Your task to perform on an android device: Open Wikipedia Image 0: 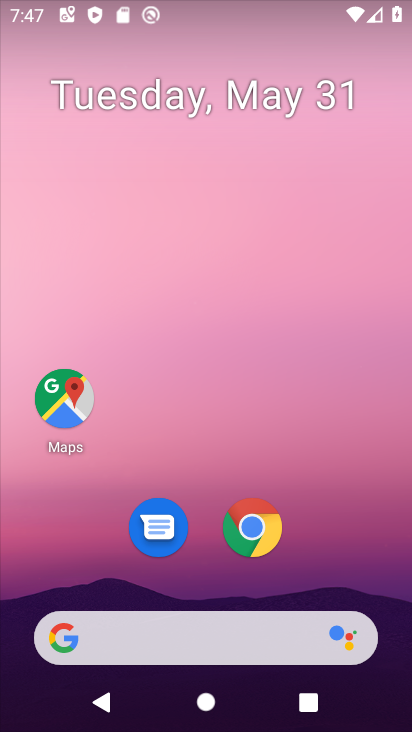
Step 0: click (249, 526)
Your task to perform on an android device: Open Wikipedia Image 1: 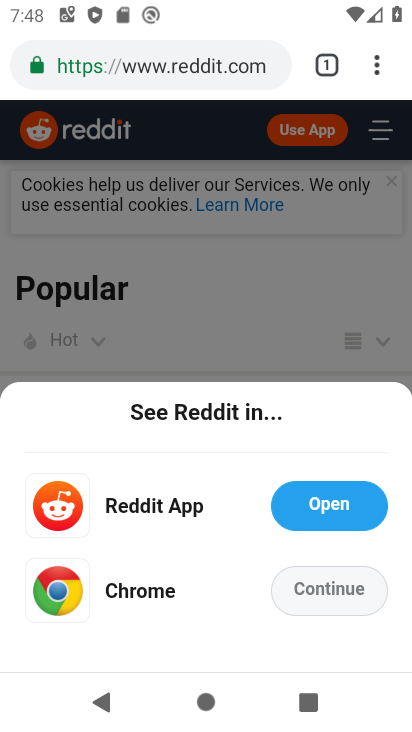
Step 1: click (315, 583)
Your task to perform on an android device: Open Wikipedia Image 2: 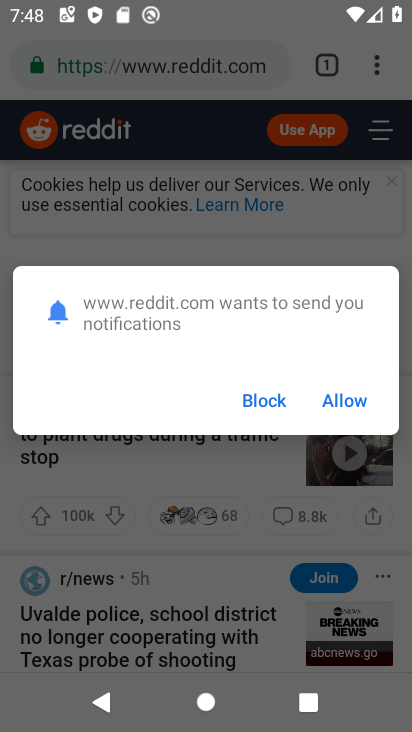
Step 2: click (328, 401)
Your task to perform on an android device: Open Wikipedia Image 3: 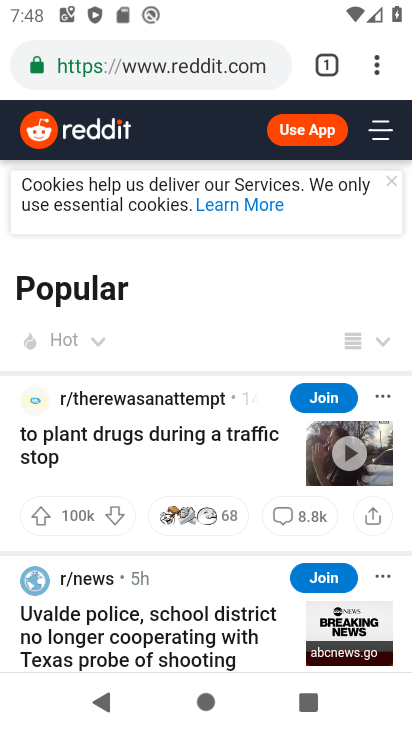
Step 3: click (373, 64)
Your task to perform on an android device: Open Wikipedia Image 4: 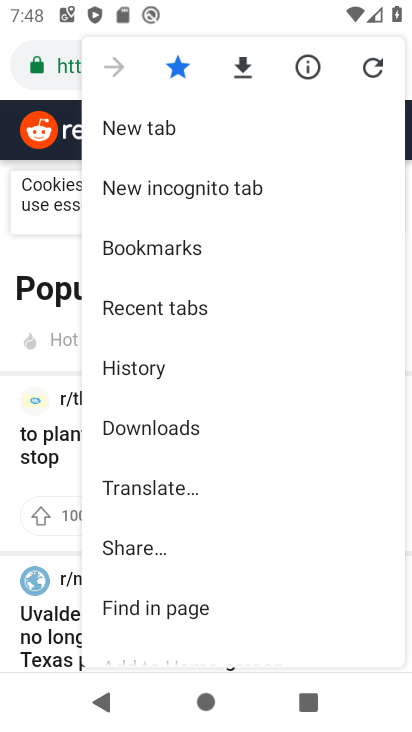
Step 4: click (163, 120)
Your task to perform on an android device: Open Wikipedia Image 5: 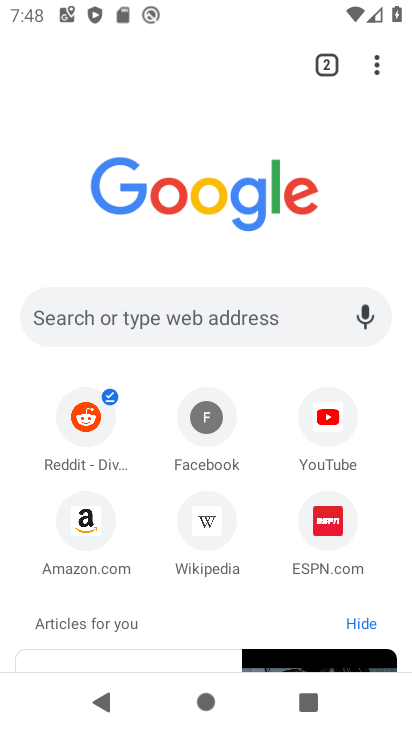
Step 5: click (216, 518)
Your task to perform on an android device: Open Wikipedia Image 6: 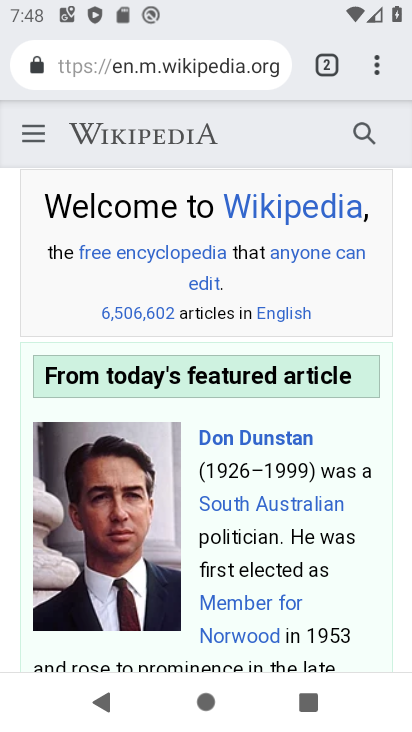
Step 6: task complete